Your task to perform on an android device: Open wifi settings Image 0: 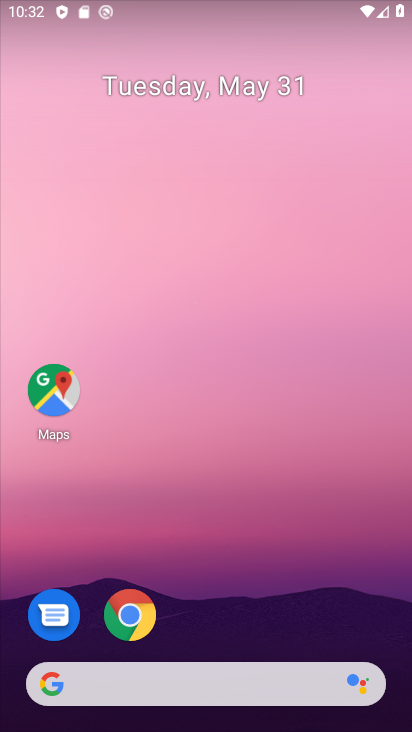
Step 0: drag from (307, 602) to (260, 24)
Your task to perform on an android device: Open wifi settings Image 1: 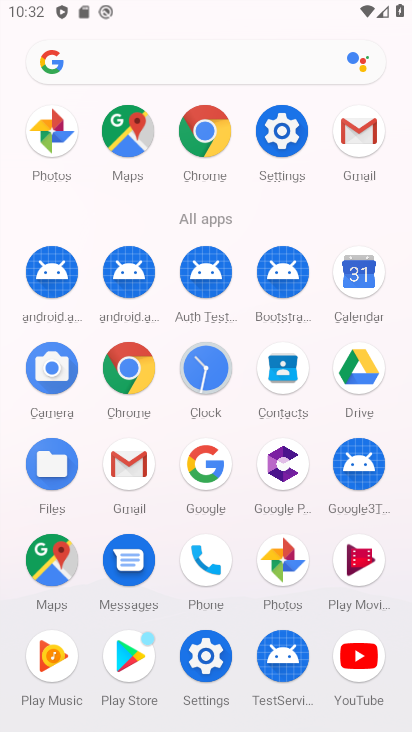
Step 1: click (274, 169)
Your task to perform on an android device: Open wifi settings Image 2: 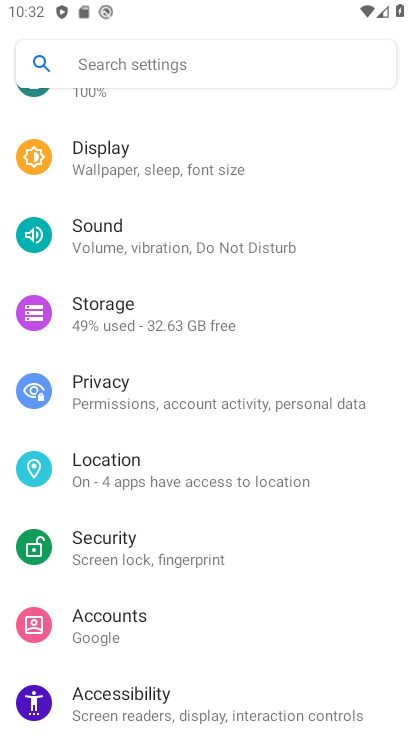
Step 2: drag from (261, 198) to (246, 617)
Your task to perform on an android device: Open wifi settings Image 3: 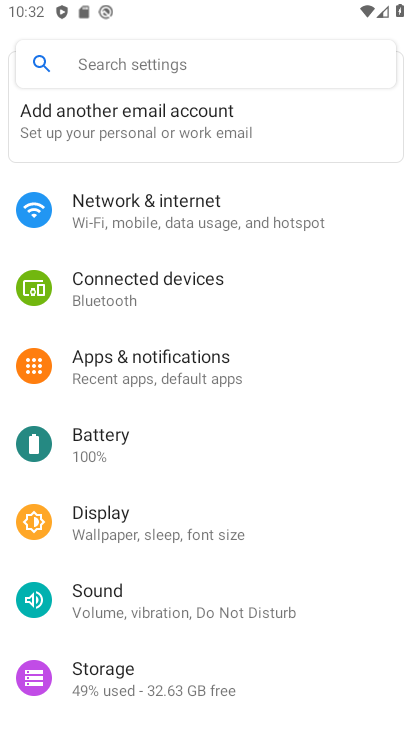
Step 3: click (203, 233)
Your task to perform on an android device: Open wifi settings Image 4: 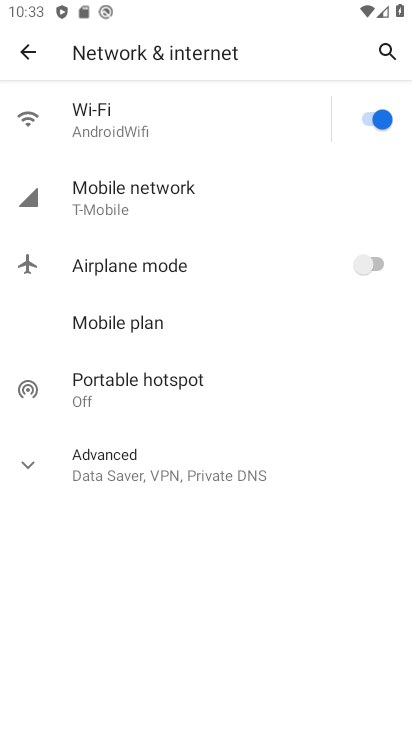
Step 4: task complete